Your task to perform on an android device: Go to Google Image 0: 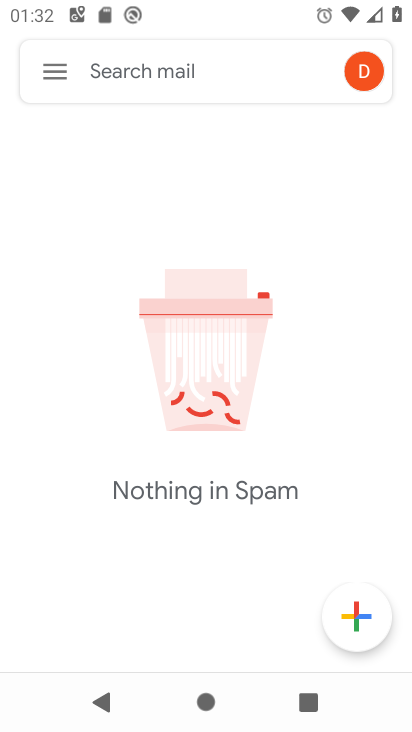
Step 0: press home button
Your task to perform on an android device: Go to Google Image 1: 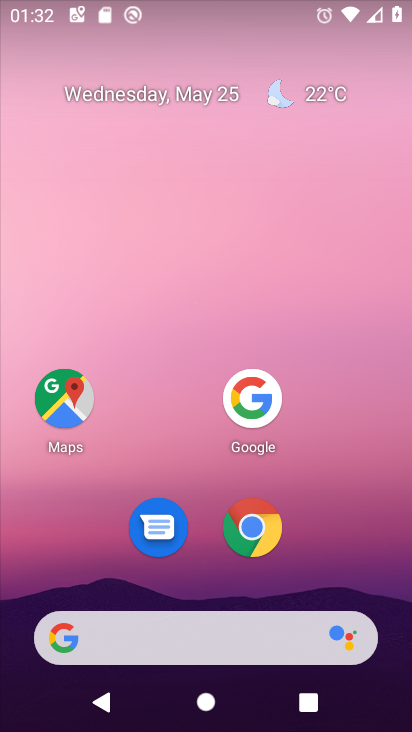
Step 1: click (261, 394)
Your task to perform on an android device: Go to Google Image 2: 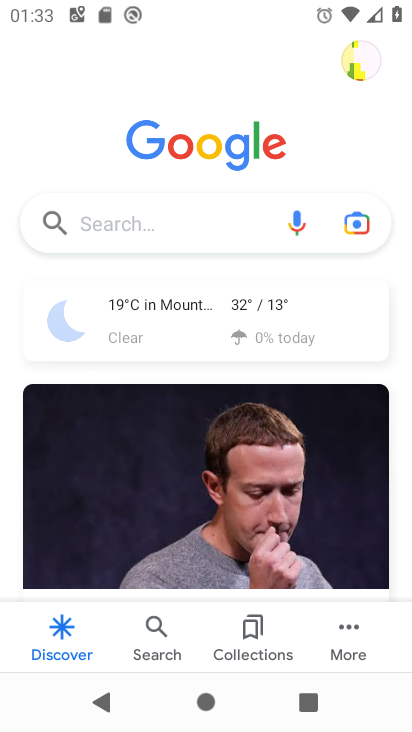
Step 2: task complete